Your task to perform on an android device: Open Chrome and go to the settings page Image 0: 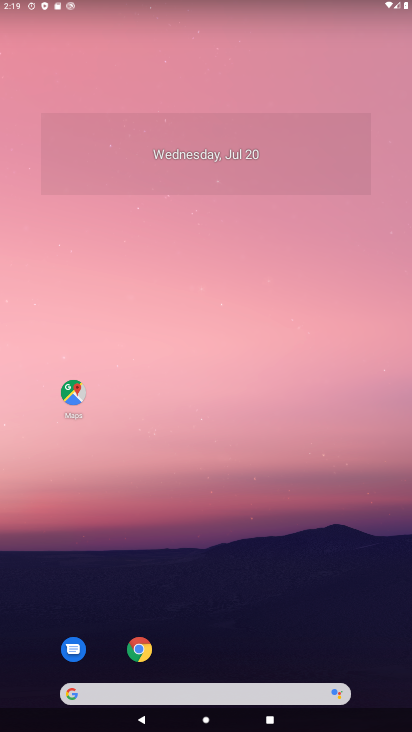
Step 0: drag from (233, 623) to (232, 221)
Your task to perform on an android device: Open Chrome and go to the settings page Image 1: 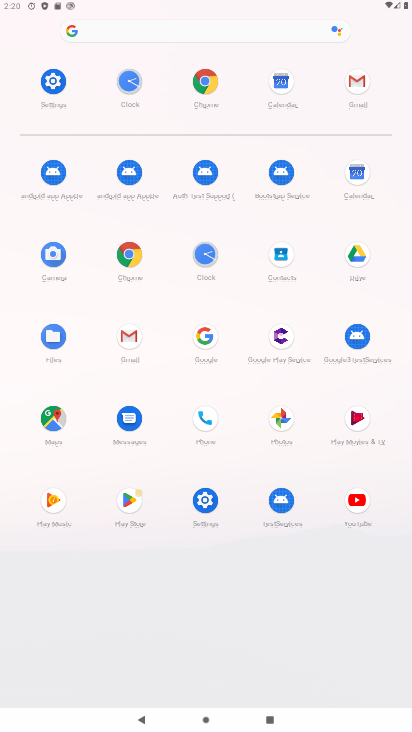
Step 1: click (211, 503)
Your task to perform on an android device: Open Chrome and go to the settings page Image 2: 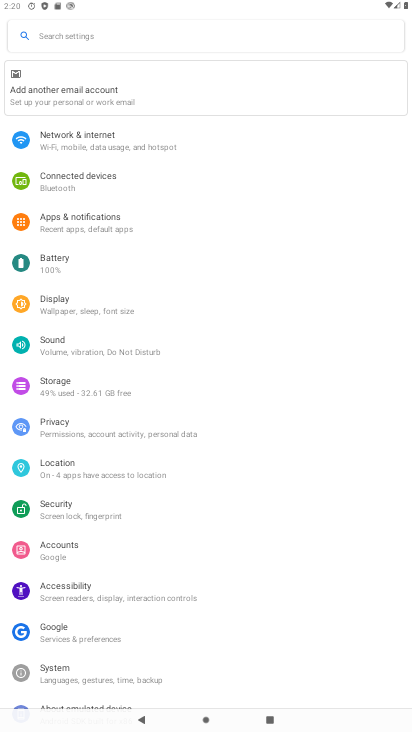
Step 2: task complete